Your task to perform on an android device: Search for seafood restaurants on Google Maps Image 0: 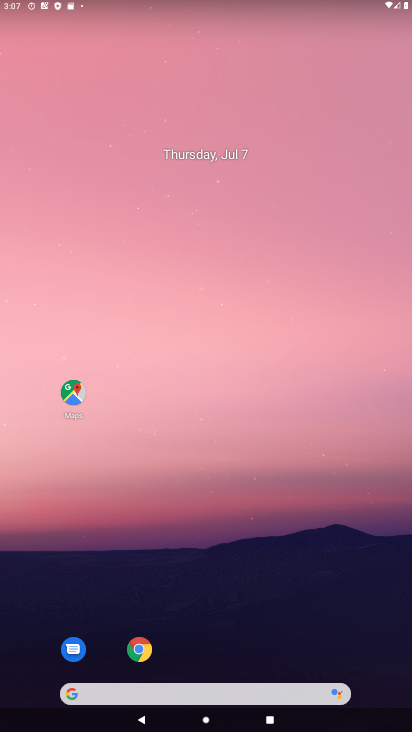
Step 0: drag from (288, 690) to (258, 65)
Your task to perform on an android device: Search for seafood restaurants on Google Maps Image 1: 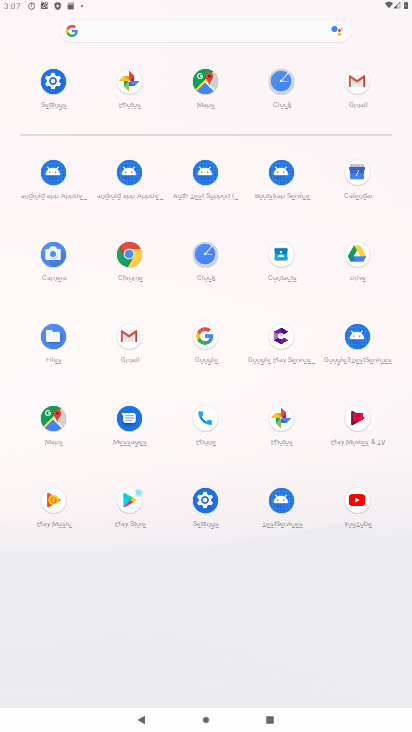
Step 1: click (40, 421)
Your task to perform on an android device: Search for seafood restaurants on Google Maps Image 2: 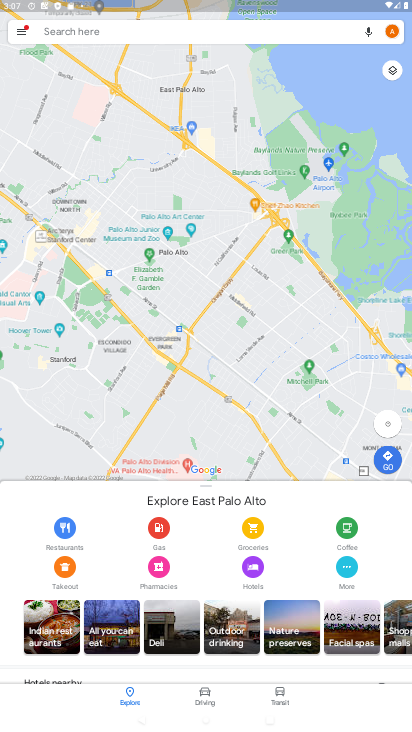
Step 2: click (250, 40)
Your task to perform on an android device: Search for seafood restaurants on Google Maps Image 3: 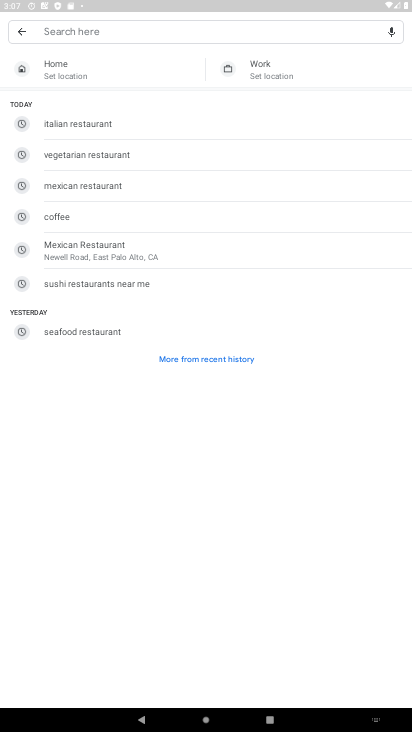
Step 3: click (107, 328)
Your task to perform on an android device: Search for seafood restaurants on Google Maps Image 4: 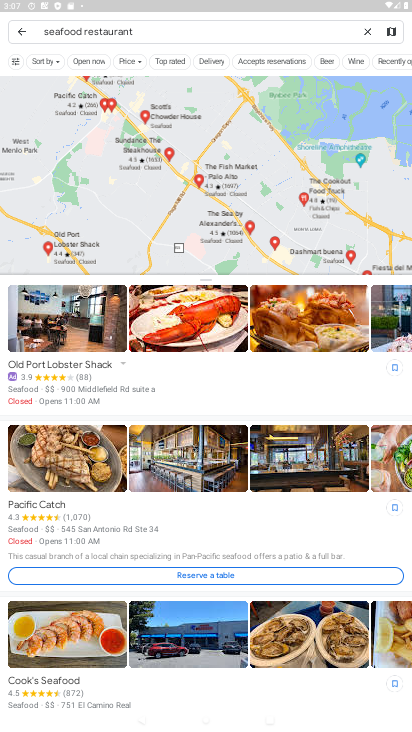
Step 4: task complete